Your task to perform on an android device: Play the last video I watched on Youtube Image 0: 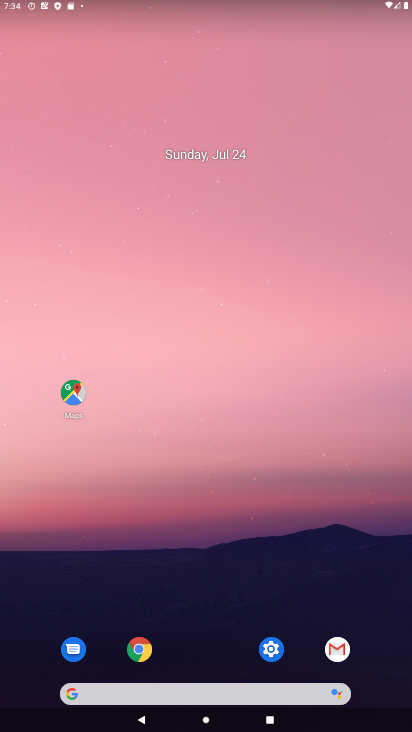
Step 0: drag from (258, 714) to (244, 249)
Your task to perform on an android device: Play the last video I watched on Youtube Image 1: 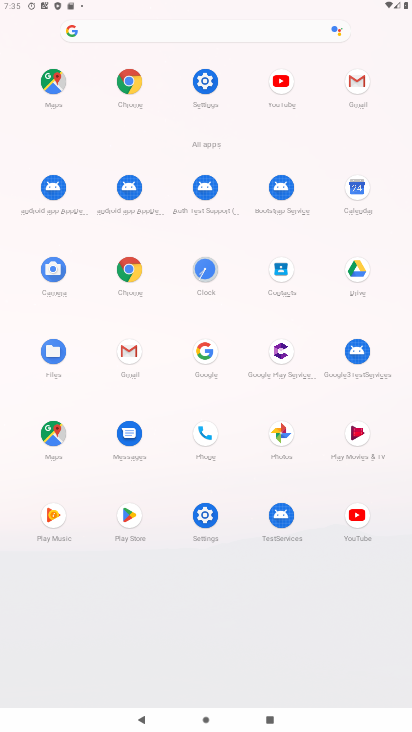
Step 1: click (354, 529)
Your task to perform on an android device: Play the last video I watched on Youtube Image 2: 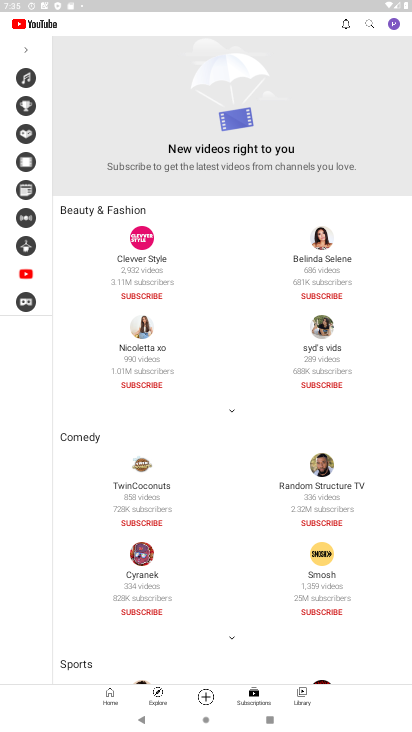
Step 2: click (300, 701)
Your task to perform on an android device: Play the last video I watched on Youtube Image 3: 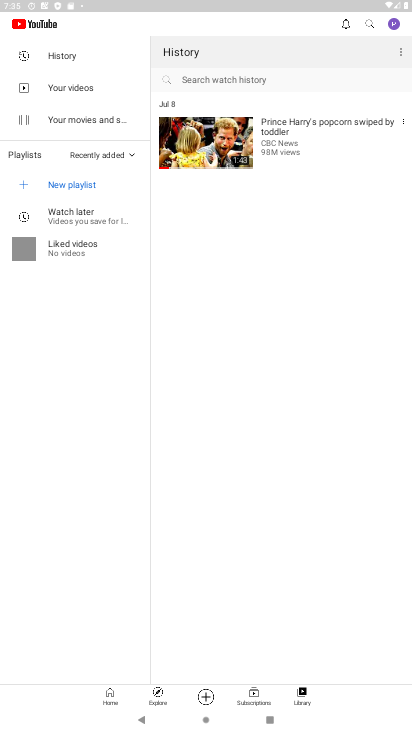
Step 3: click (250, 138)
Your task to perform on an android device: Play the last video I watched on Youtube Image 4: 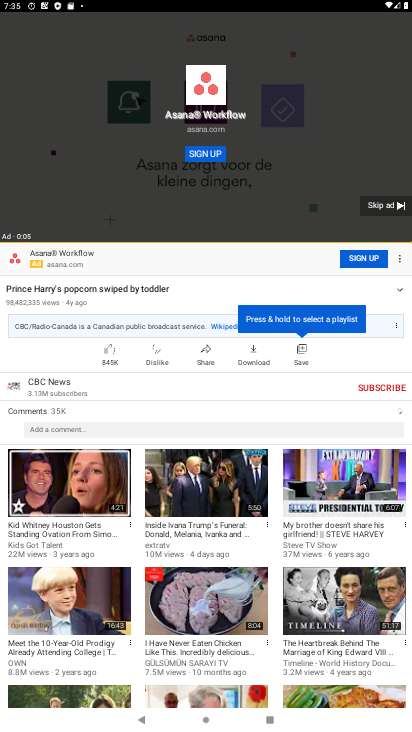
Step 4: click (384, 211)
Your task to perform on an android device: Play the last video I watched on Youtube Image 5: 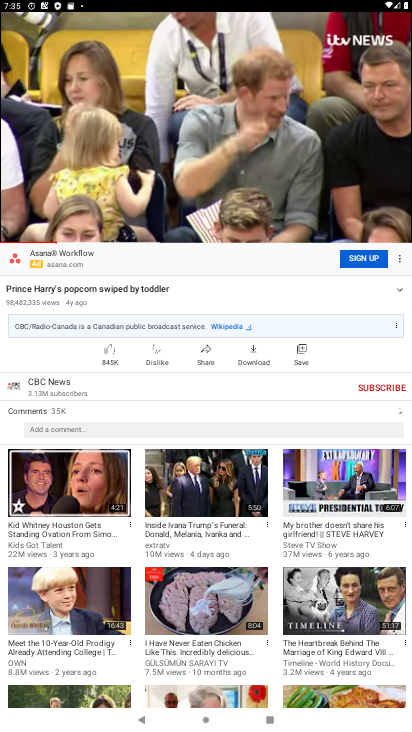
Step 5: task complete